Your task to perform on an android device: allow notifications from all sites in the chrome app Image 0: 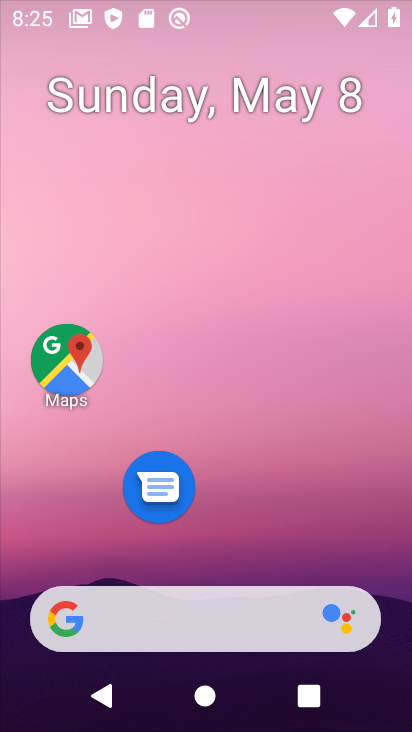
Step 0: drag from (330, 548) to (391, 41)
Your task to perform on an android device: allow notifications from all sites in the chrome app Image 1: 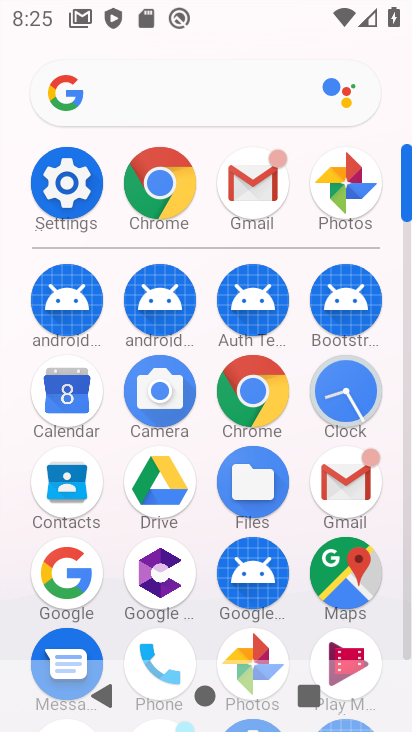
Step 1: click (336, 558)
Your task to perform on an android device: allow notifications from all sites in the chrome app Image 2: 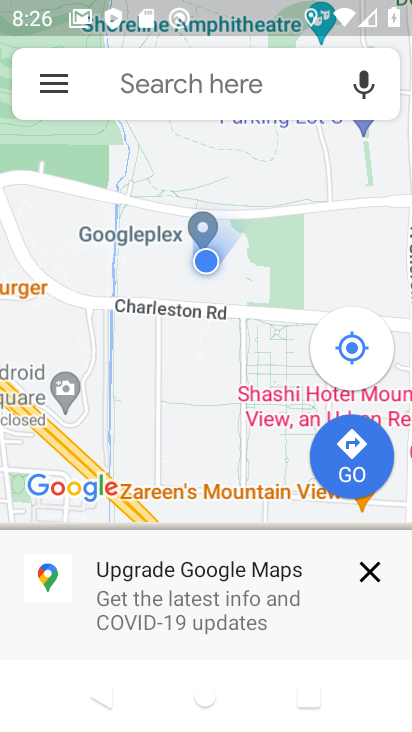
Step 2: press home button
Your task to perform on an android device: allow notifications from all sites in the chrome app Image 3: 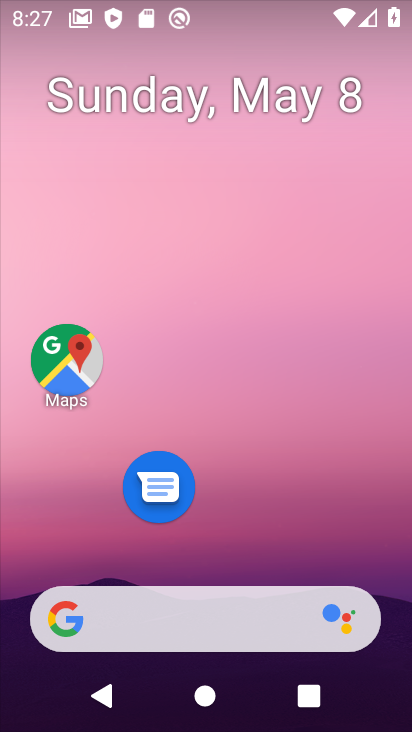
Step 3: drag from (263, 569) to (275, 3)
Your task to perform on an android device: allow notifications from all sites in the chrome app Image 4: 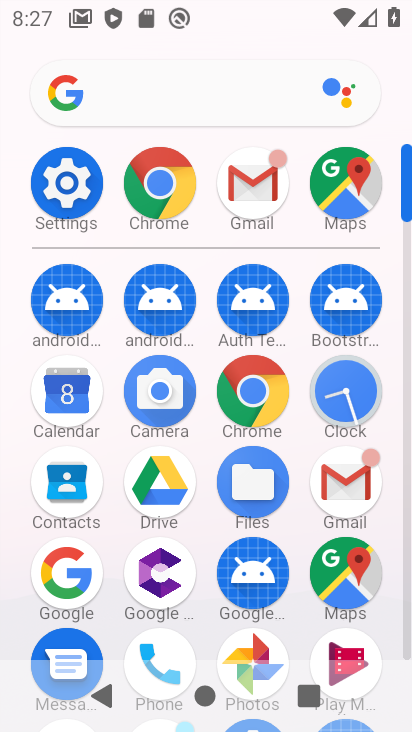
Step 4: click (168, 204)
Your task to perform on an android device: allow notifications from all sites in the chrome app Image 5: 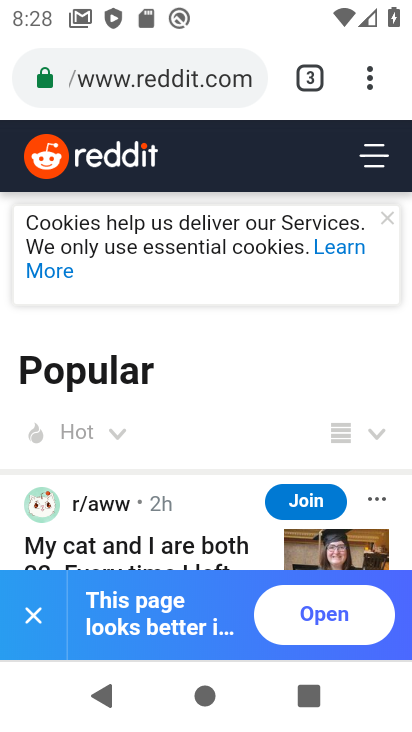
Step 5: click (388, 75)
Your task to perform on an android device: allow notifications from all sites in the chrome app Image 6: 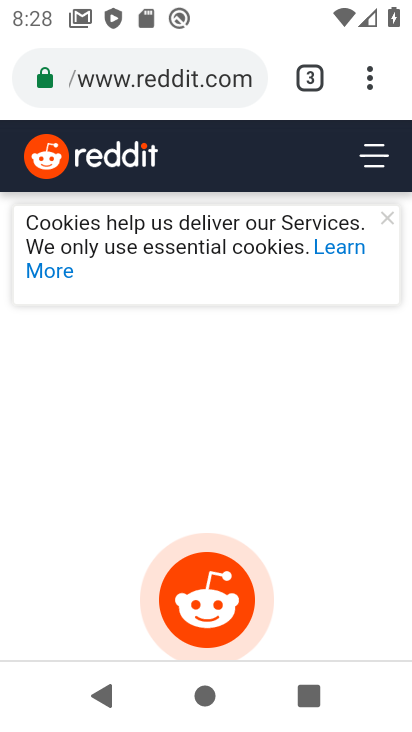
Step 6: click (388, 84)
Your task to perform on an android device: allow notifications from all sites in the chrome app Image 7: 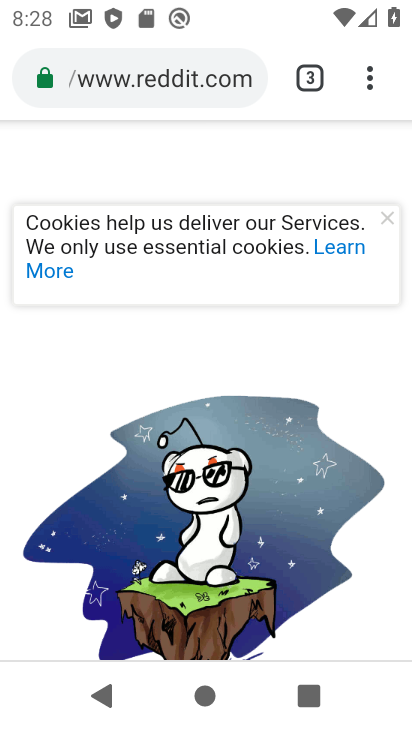
Step 7: click (373, 81)
Your task to perform on an android device: allow notifications from all sites in the chrome app Image 8: 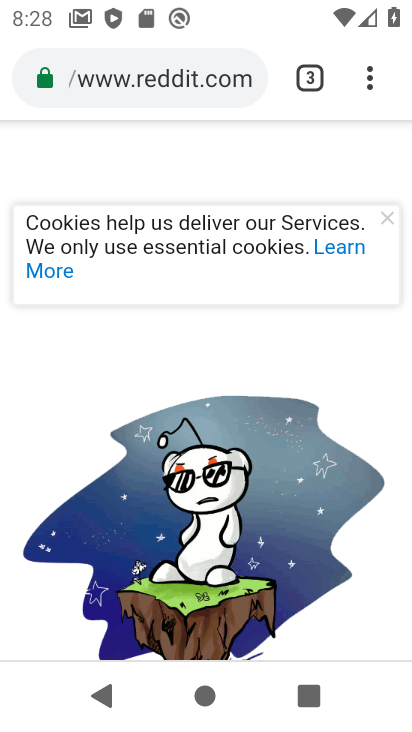
Step 8: task complete